Your task to perform on an android device: check data usage Image 0: 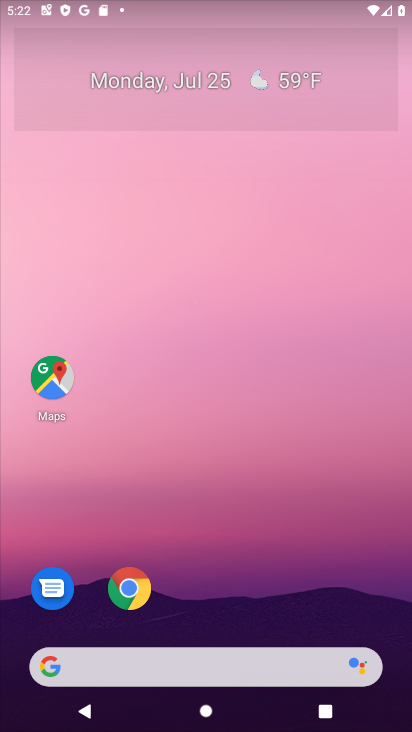
Step 0: drag from (292, 528) to (353, 113)
Your task to perform on an android device: check data usage Image 1: 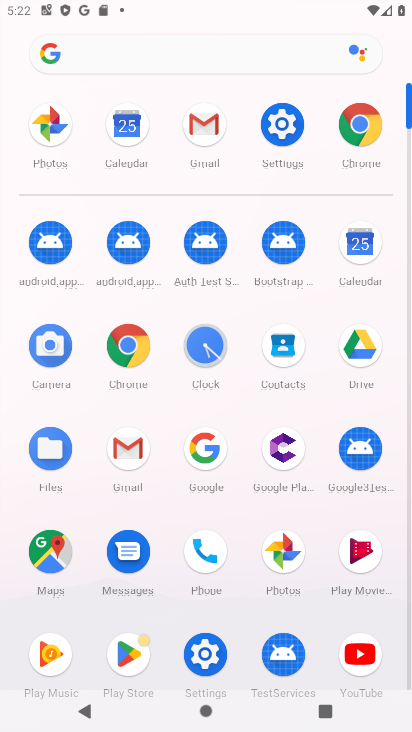
Step 1: click (216, 646)
Your task to perform on an android device: check data usage Image 2: 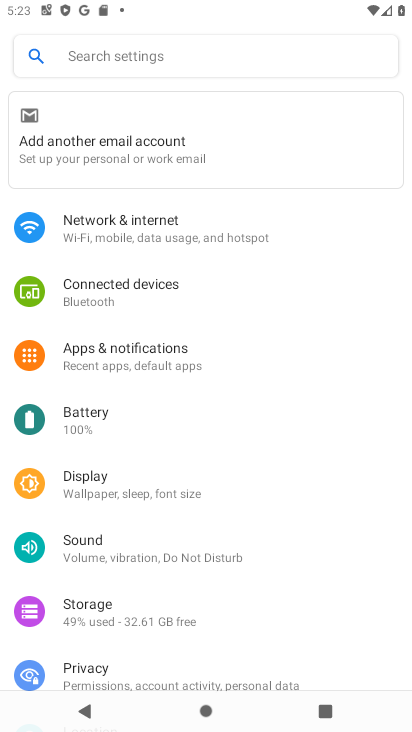
Step 2: click (119, 222)
Your task to perform on an android device: check data usage Image 3: 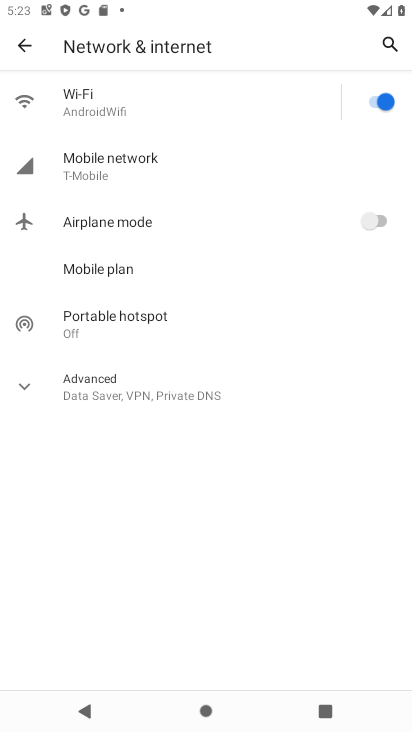
Step 3: click (125, 273)
Your task to perform on an android device: check data usage Image 4: 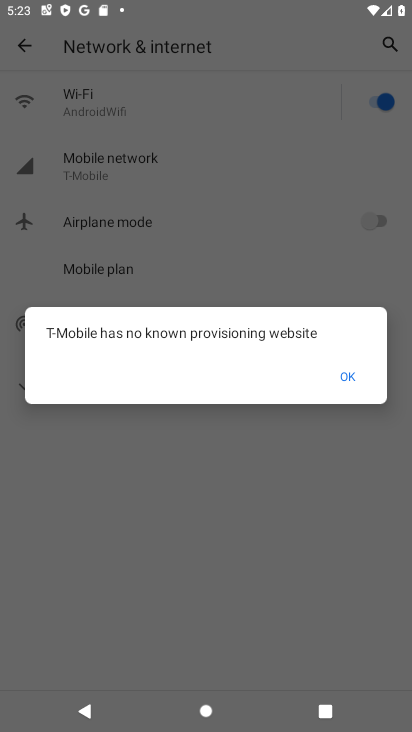
Step 4: click (355, 367)
Your task to perform on an android device: check data usage Image 5: 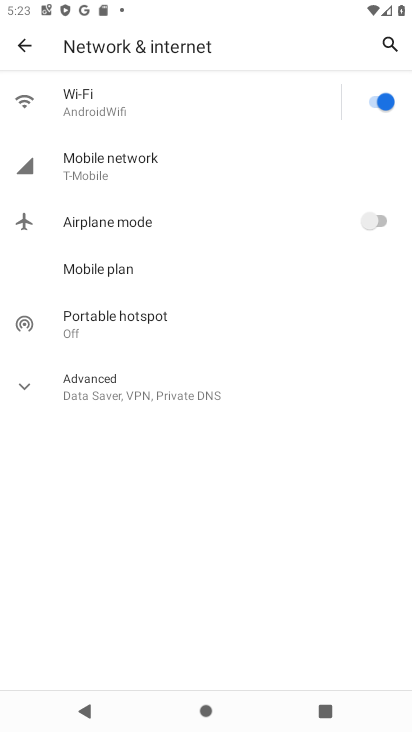
Step 5: click (345, 379)
Your task to perform on an android device: check data usage Image 6: 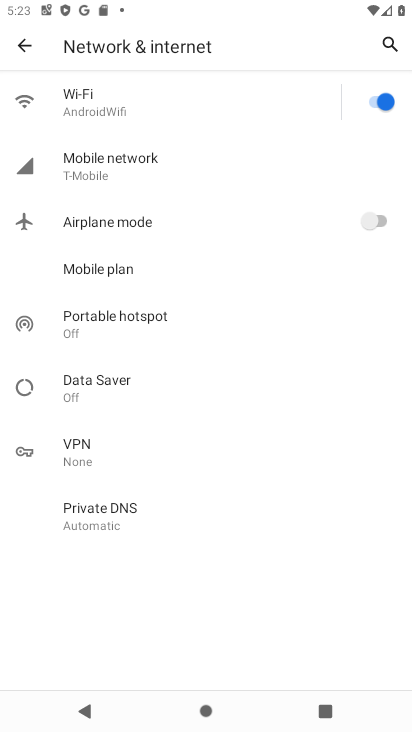
Step 6: task complete